Your task to perform on an android device: snooze an email in the gmail app Image 0: 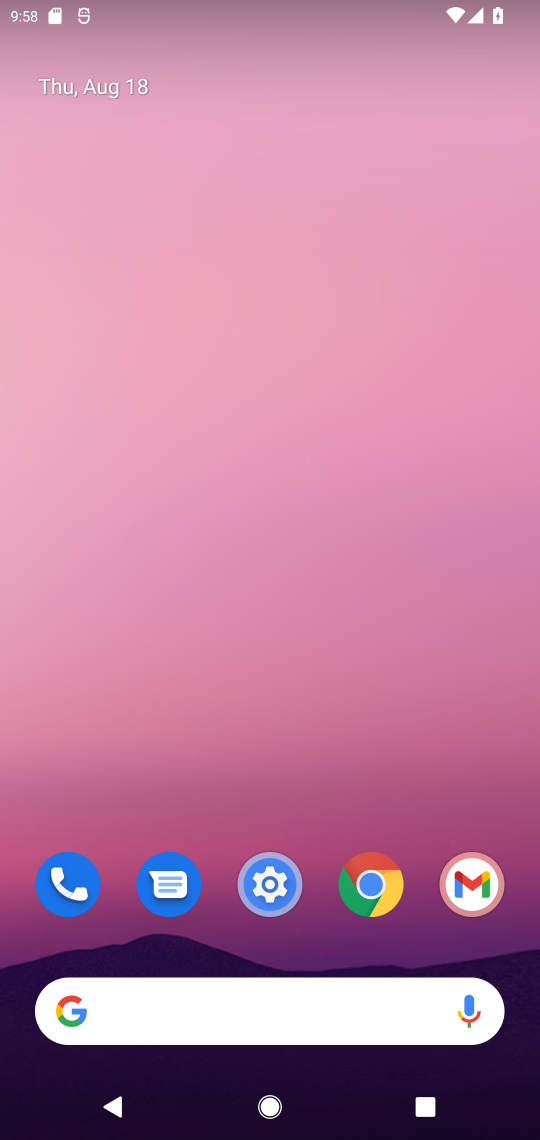
Step 0: press home button
Your task to perform on an android device: snooze an email in the gmail app Image 1: 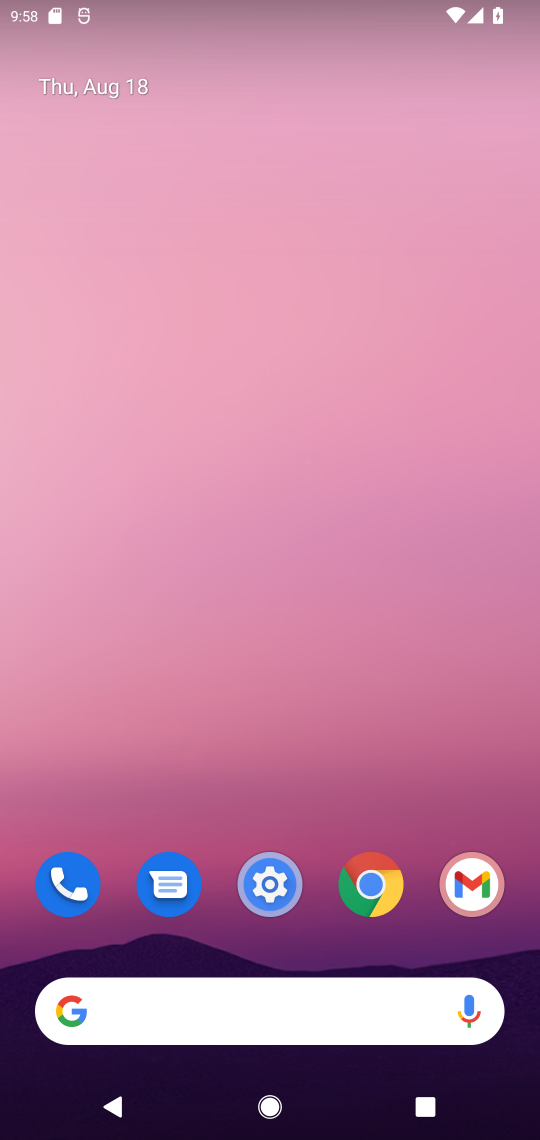
Step 1: click (467, 881)
Your task to perform on an android device: snooze an email in the gmail app Image 2: 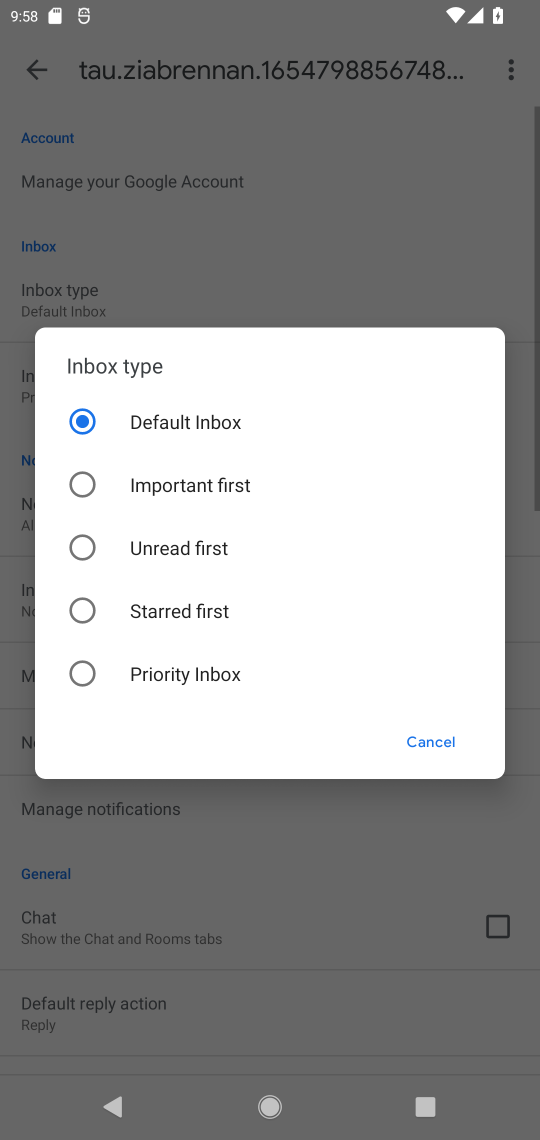
Step 2: click (140, 268)
Your task to perform on an android device: snooze an email in the gmail app Image 3: 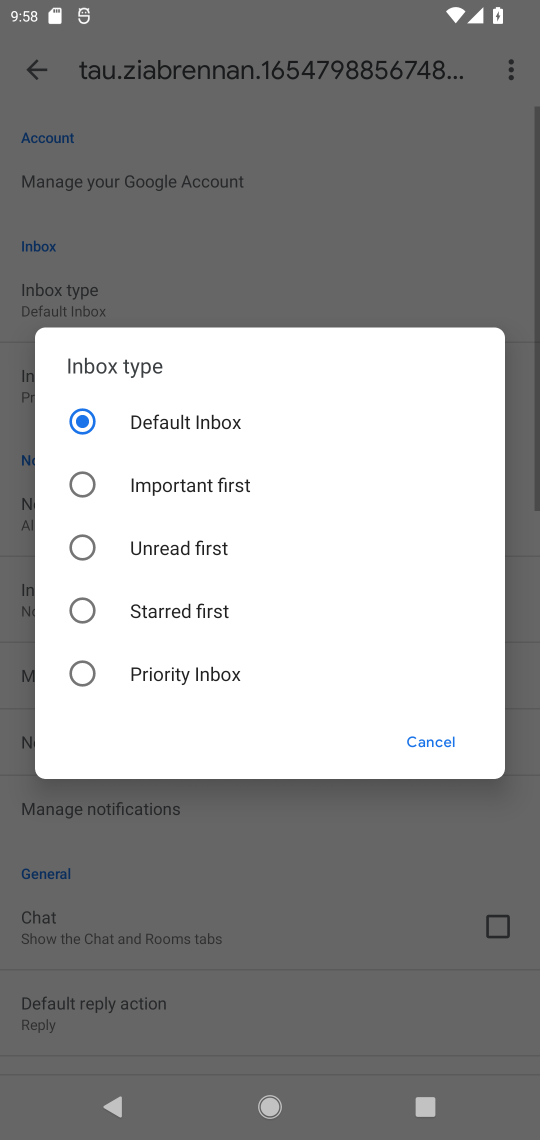
Step 3: click (48, 56)
Your task to perform on an android device: snooze an email in the gmail app Image 4: 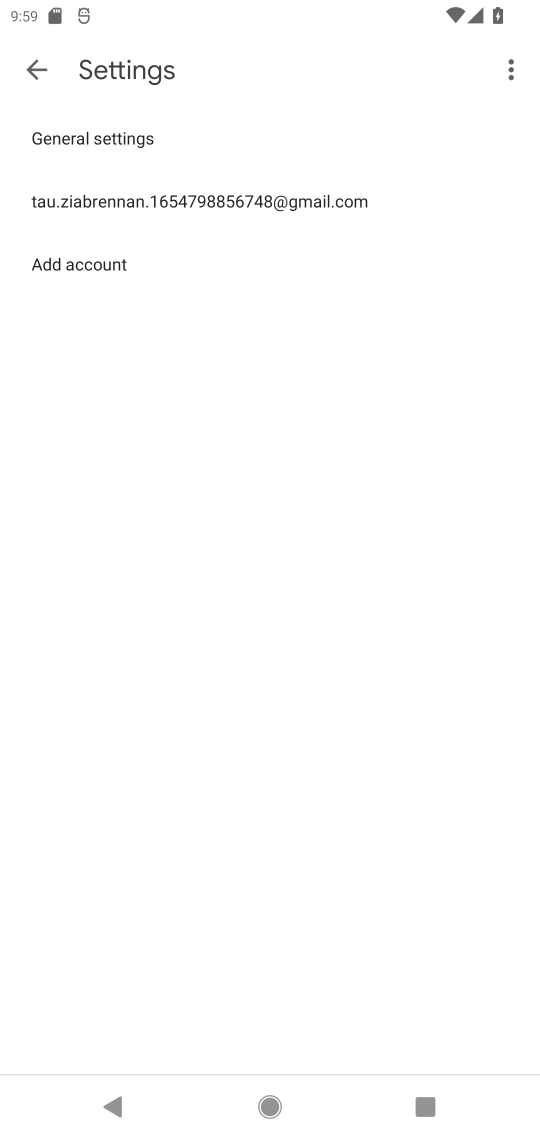
Step 4: click (48, 56)
Your task to perform on an android device: snooze an email in the gmail app Image 5: 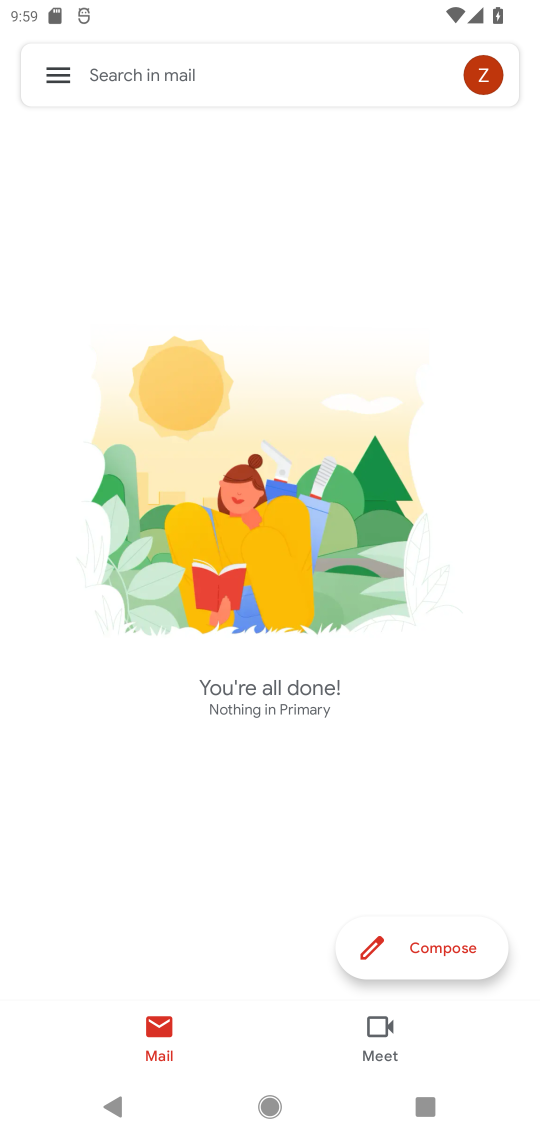
Step 5: click (48, 56)
Your task to perform on an android device: snooze an email in the gmail app Image 6: 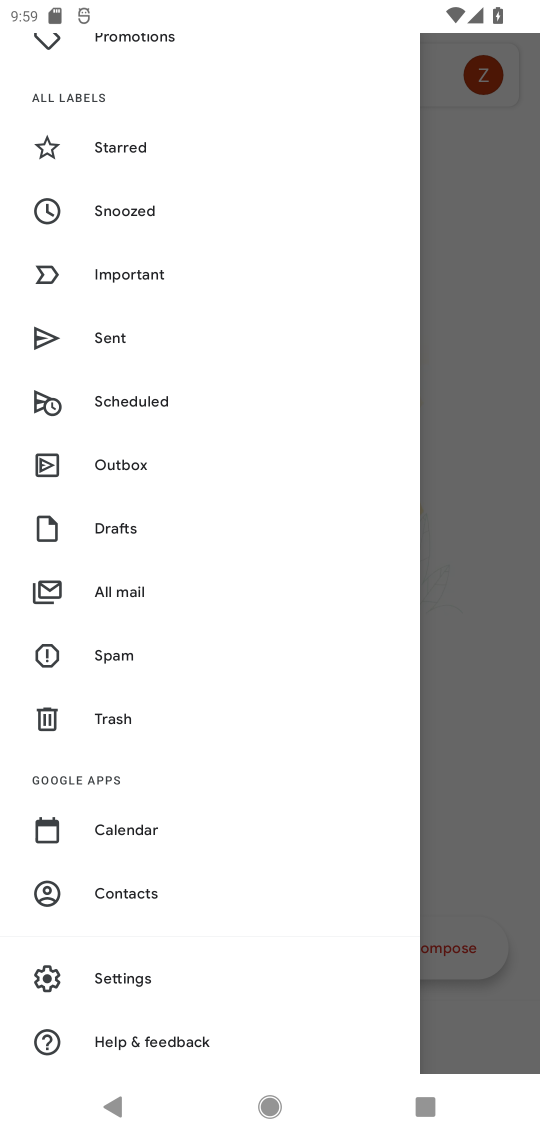
Step 6: click (446, 216)
Your task to perform on an android device: snooze an email in the gmail app Image 7: 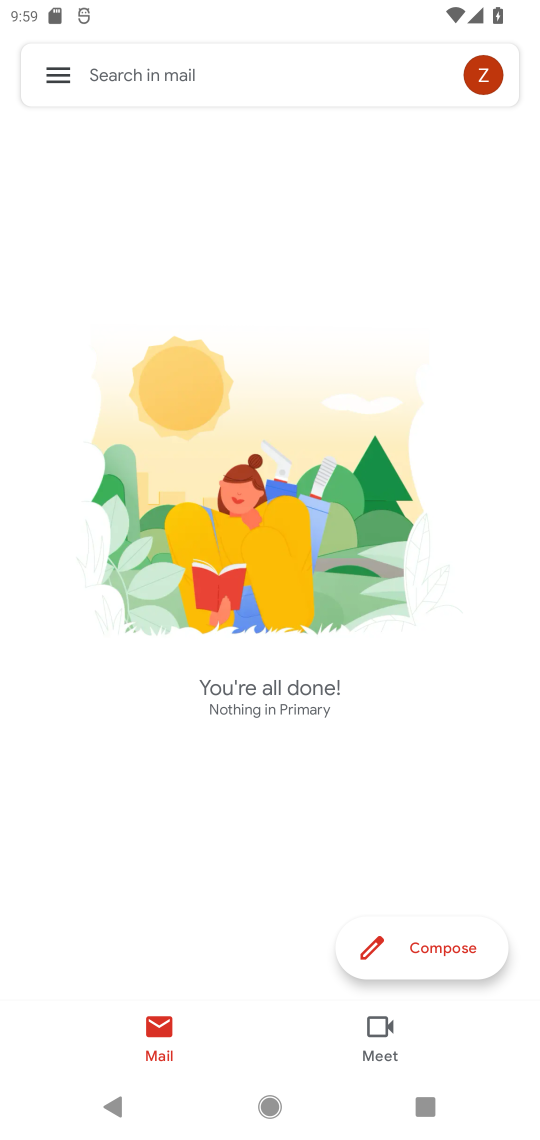
Step 7: task complete